Your task to perform on an android device: Search for sony triple a on walmart.com, select the first entry, and add it to the cart. Image 0: 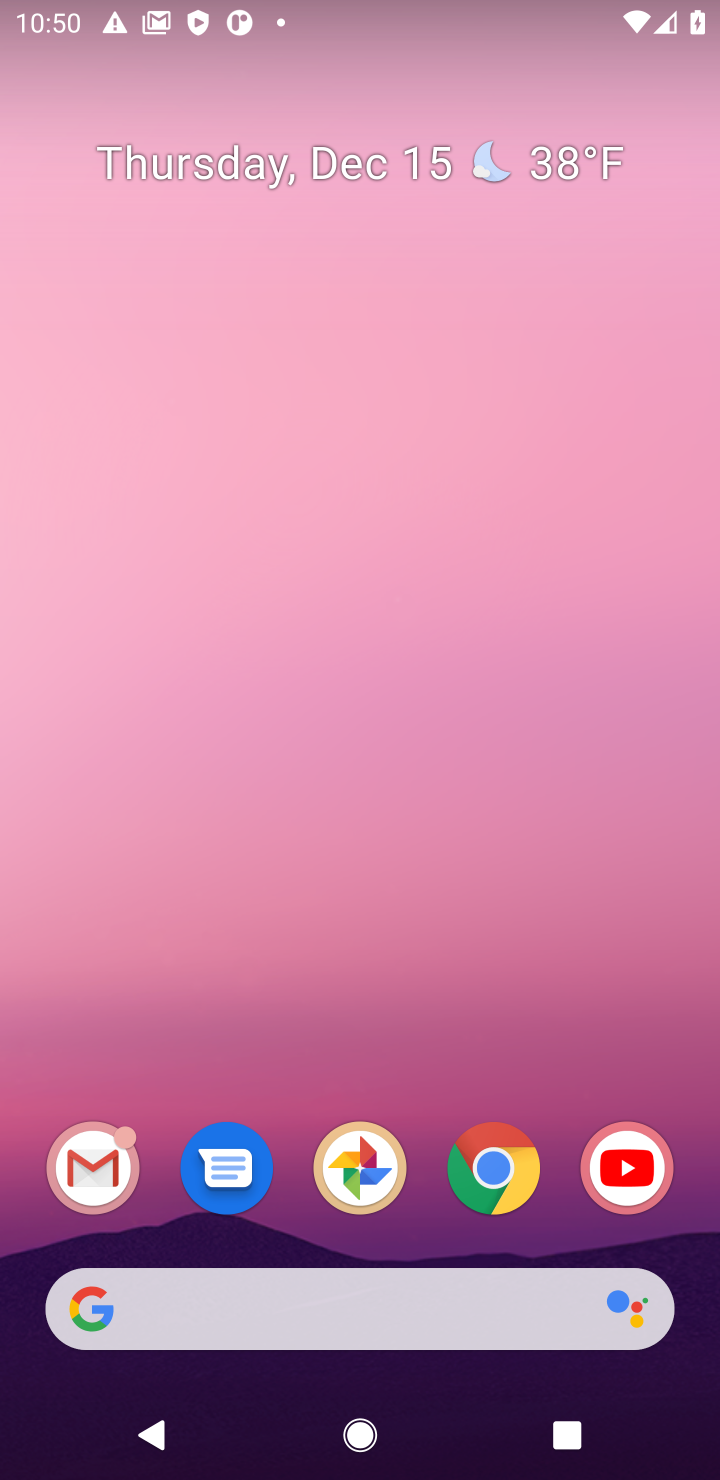
Step 0: click (495, 1170)
Your task to perform on an android device: Search for sony triple a on walmart.com, select the first entry, and add it to the cart. Image 1: 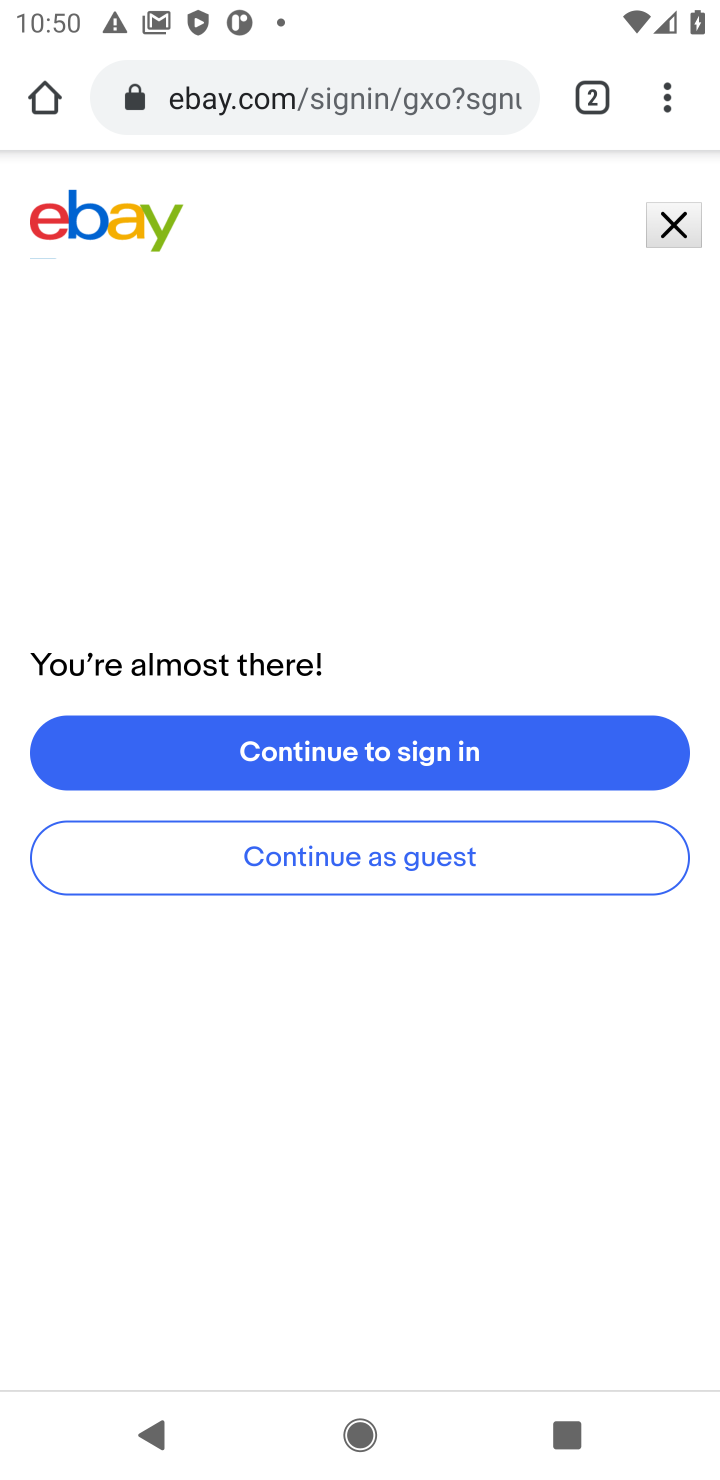
Step 1: click (324, 90)
Your task to perform on an android device: Search for sony triple a on walmart.com, select the first entry, and add it to the cart. Image 2: 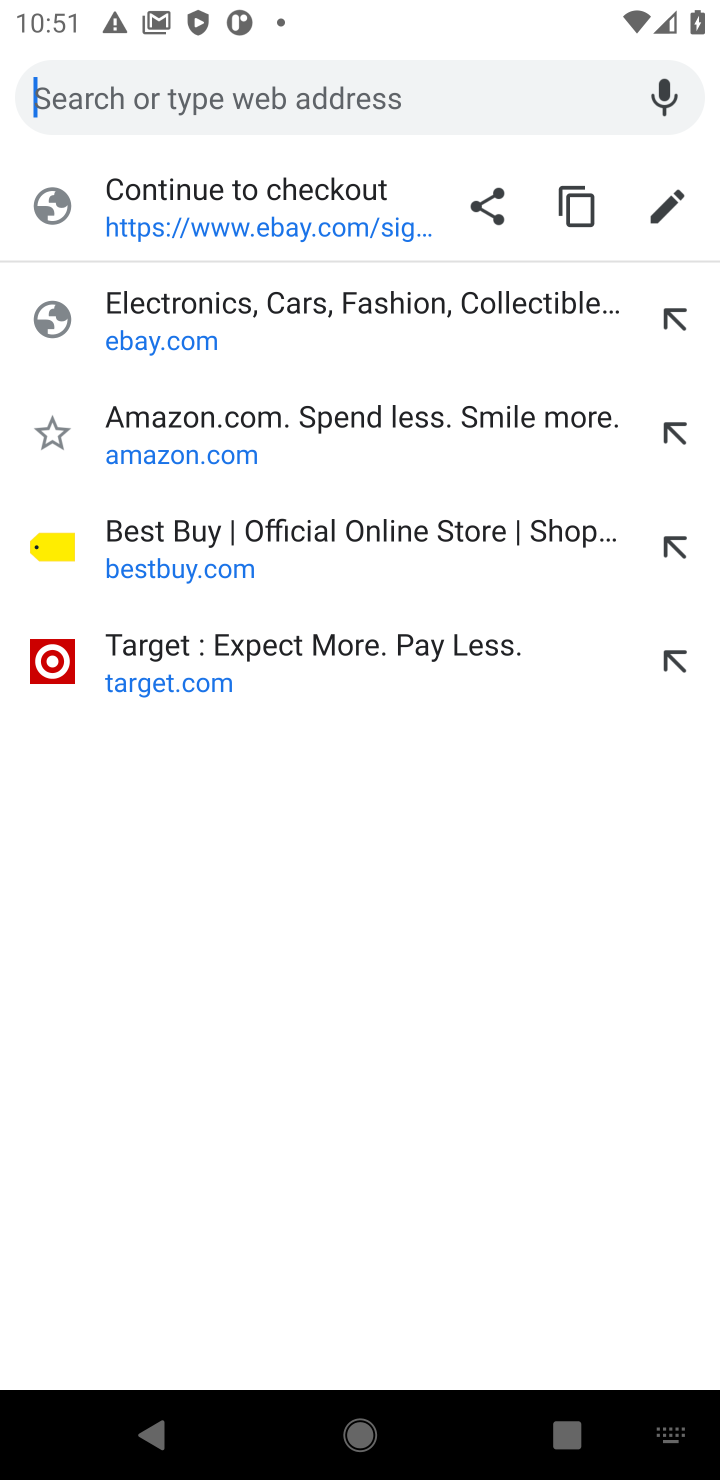
Step 2: type "walmart"
Your task to perform on an android device: Search for sony triple a on walmart.com, select the first entry, and add it to the cart. Image 3: 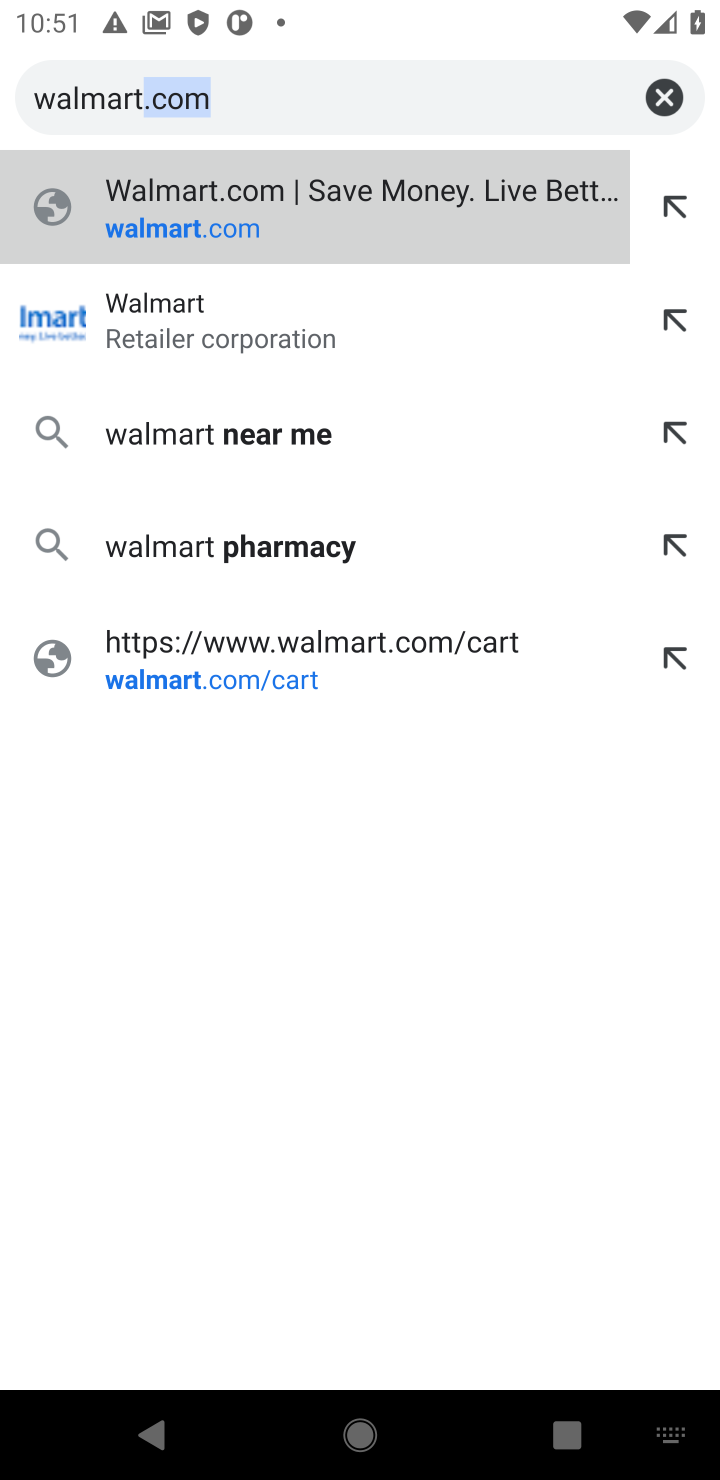
Step 3: click (244, 210)
Your task to perform on an android device: Search for sony triple a on walmart.com, select the first entry, and add it to the cart. Image 4: 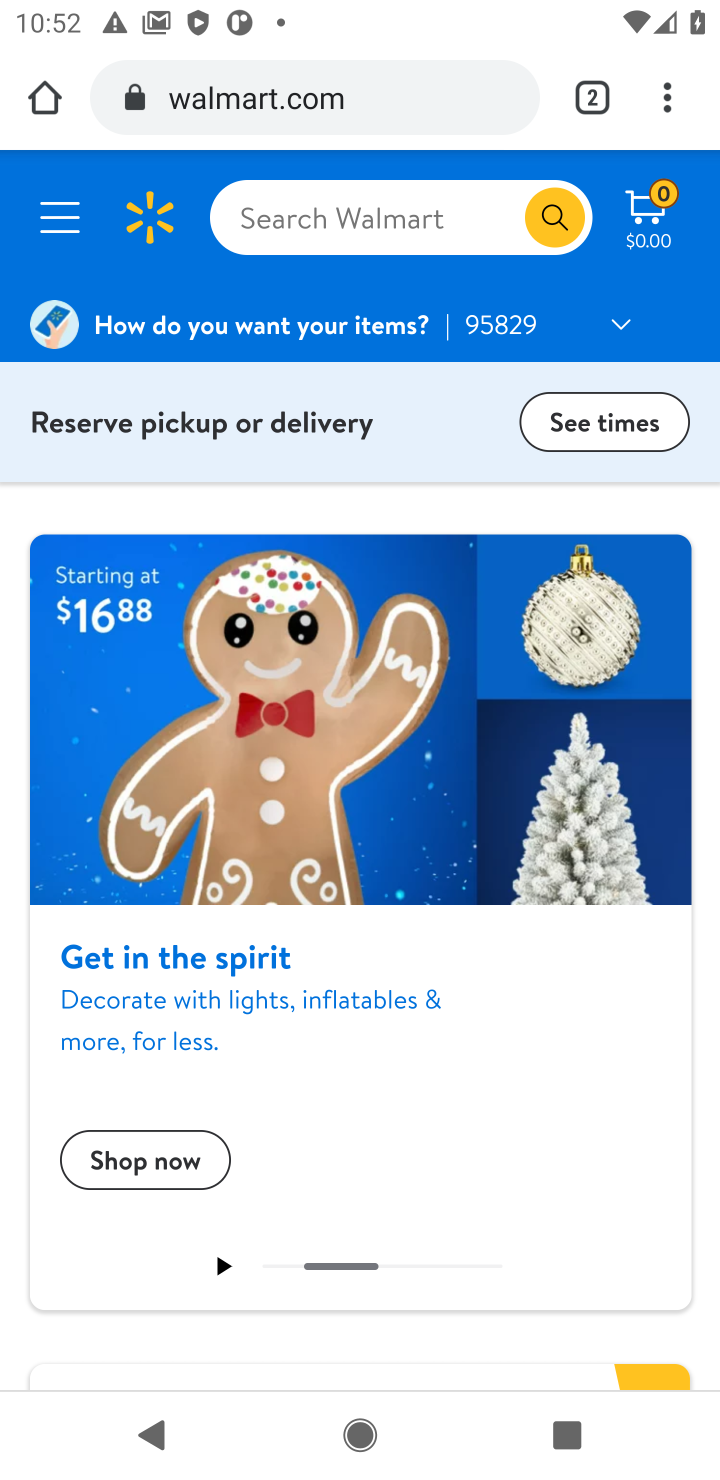
Step 4: click (244, 210)
Your task to perform on an android device: Search for sony triple a on walmart.com, select the first entry, and add it to the cart. Image 5: 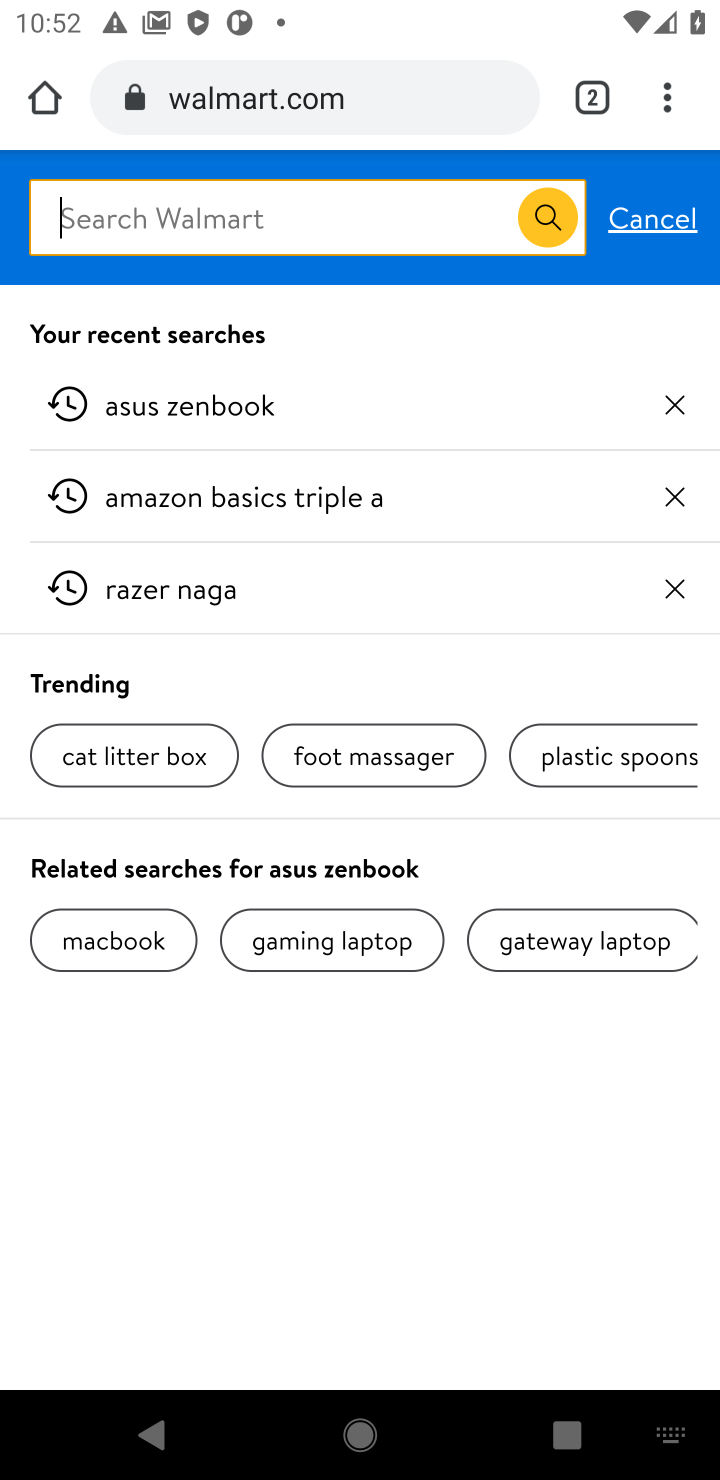
Step 5: type "sony triple a"
Your task to perform on an android device: Search for sony triple a on walmart.com, select the first entry, and add it to the cart. Image 6: 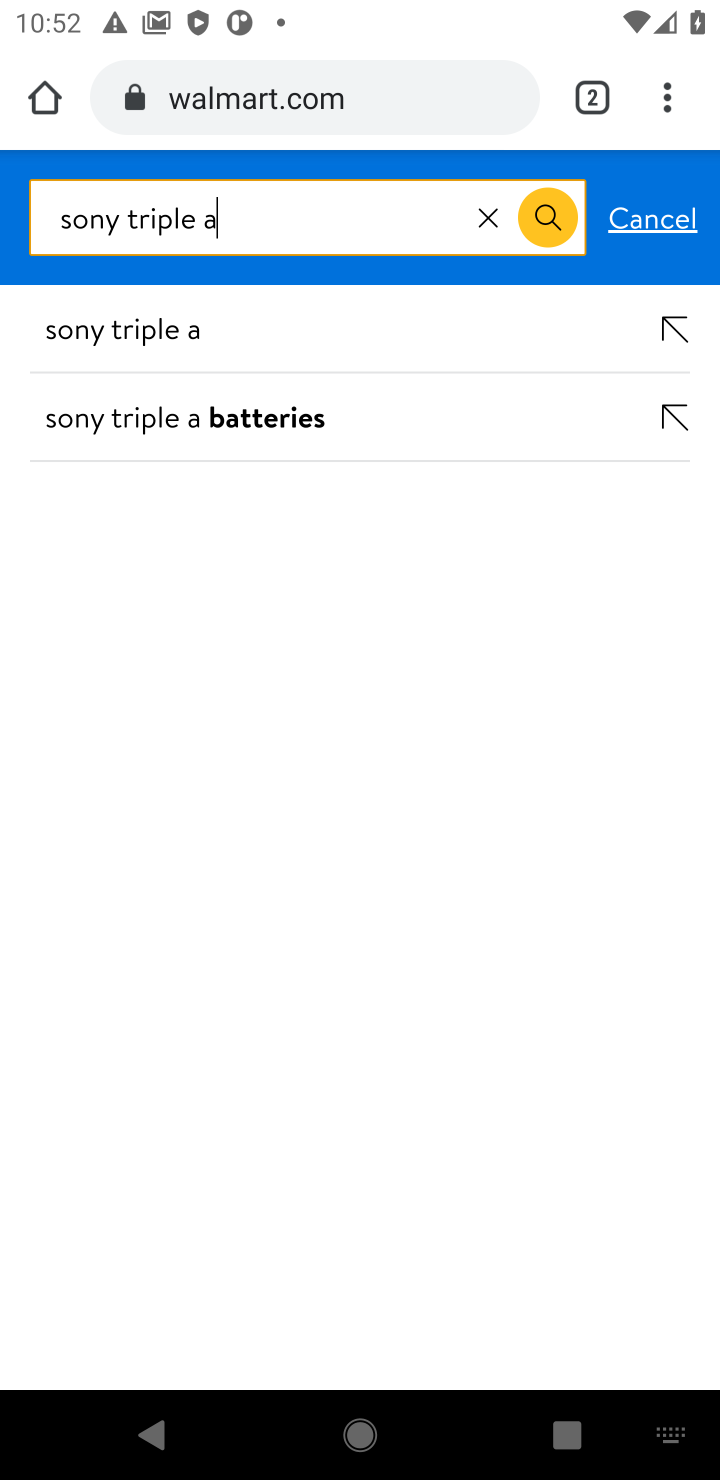
Step 6: click (242, 342)
Your task to perform on an android device: Search for sony triple a on walmart.com, select the first entry, and add it to the cart. Image 7: 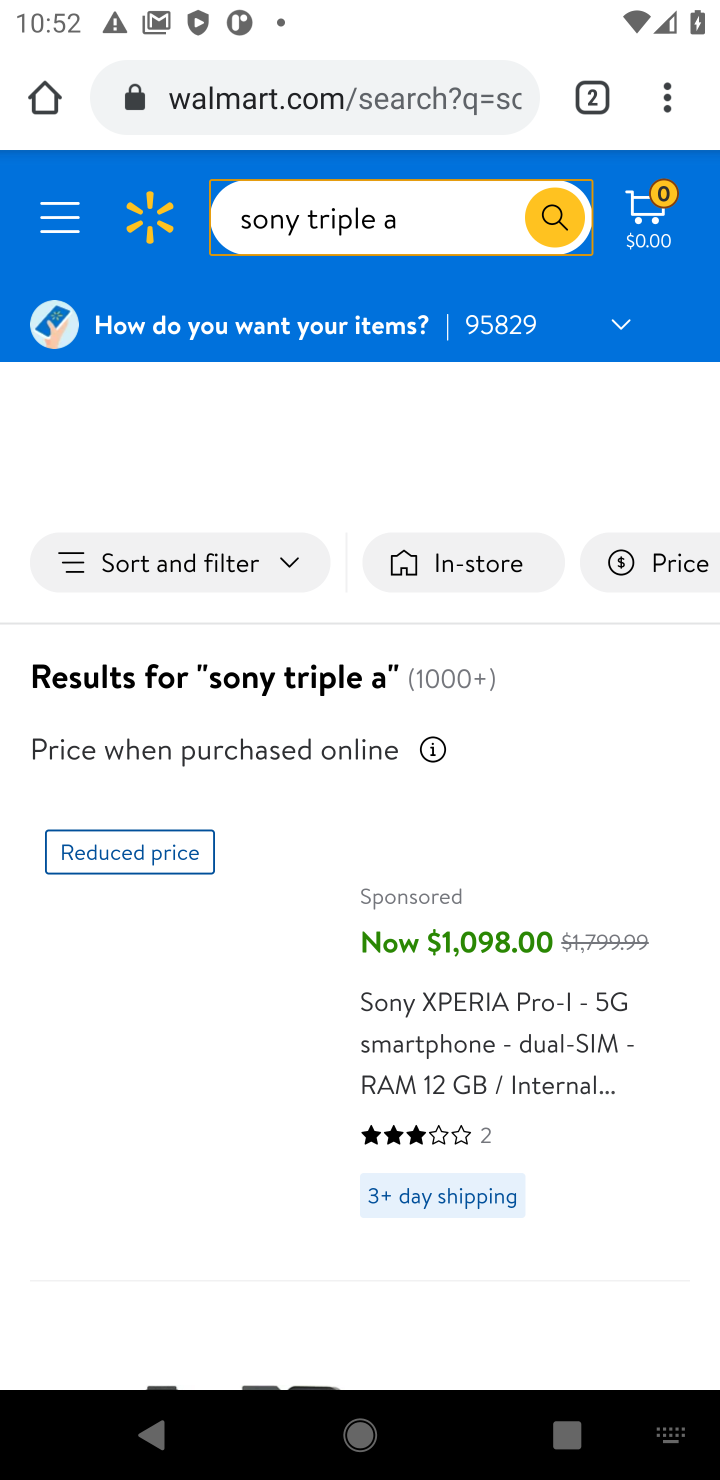
Step 7: click (554, 219)
Your task to perform on an android device: Search for sony triple a on walmart.com, select the first entry, and add it to the cart. Image 8: 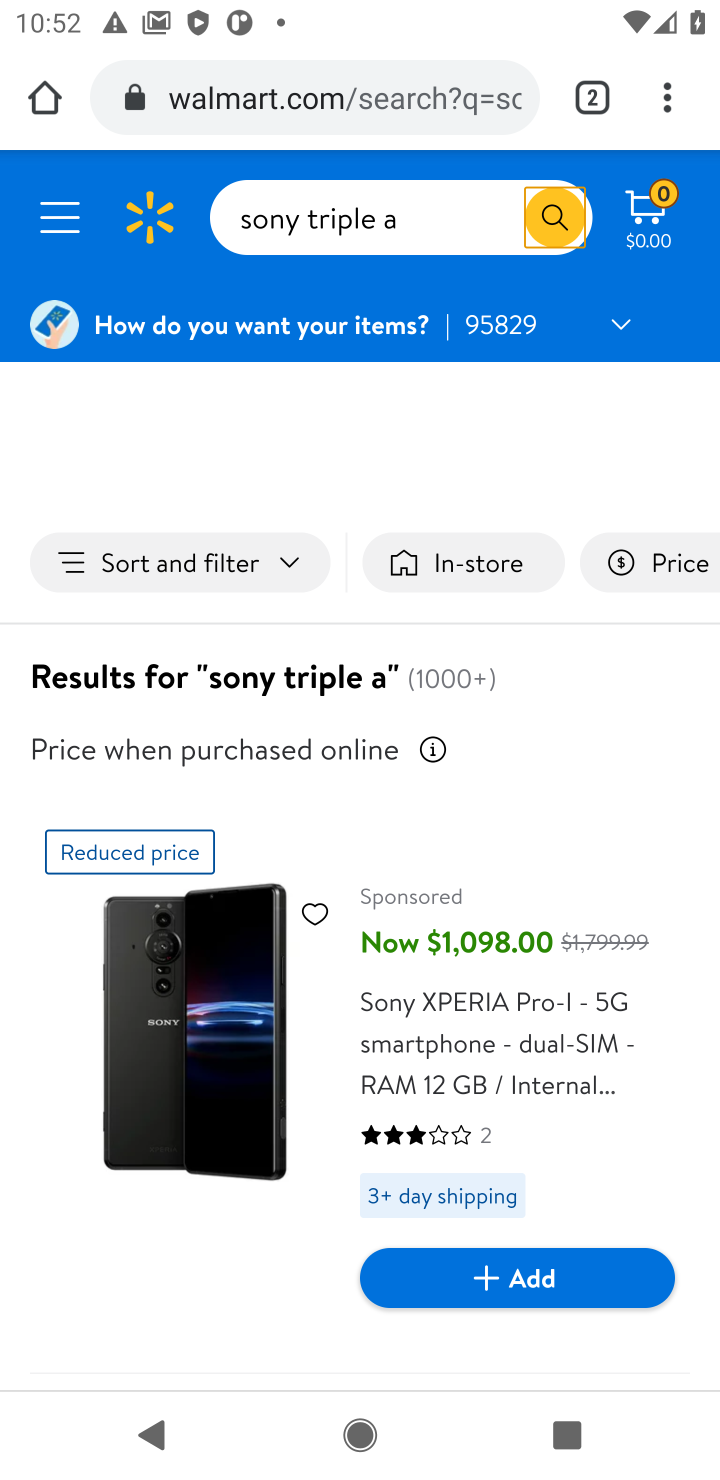
Step 8: click (511, 1274)
Your task to perform on an android device: Search for sony triple a on walmart.com, select the first entry, and add it to the cart. Image 9: 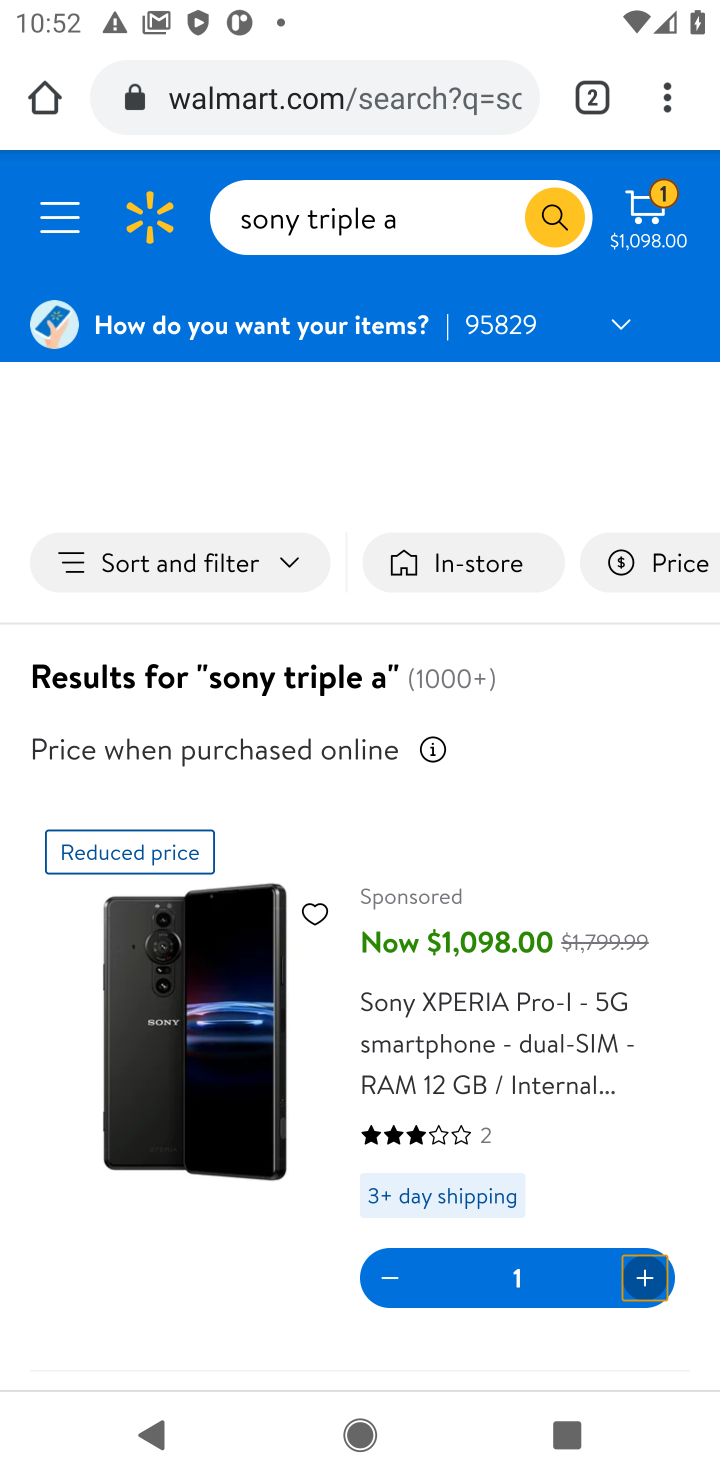
Step 9: task complete